Your task to perform on an android device: delete location history Image 0: 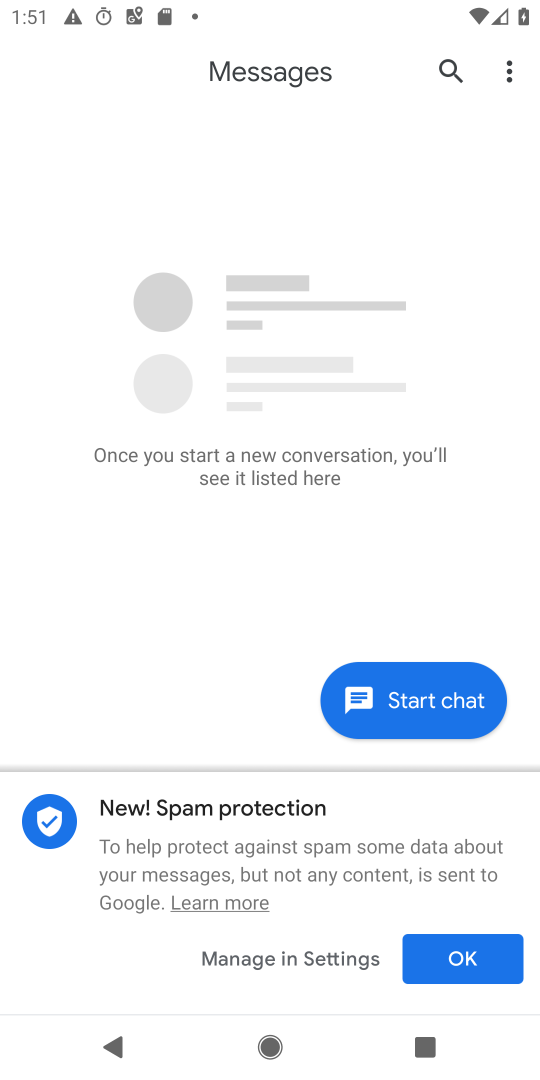
Step 0: press home button
Your task to perform on an android device: delete location history Image 1: 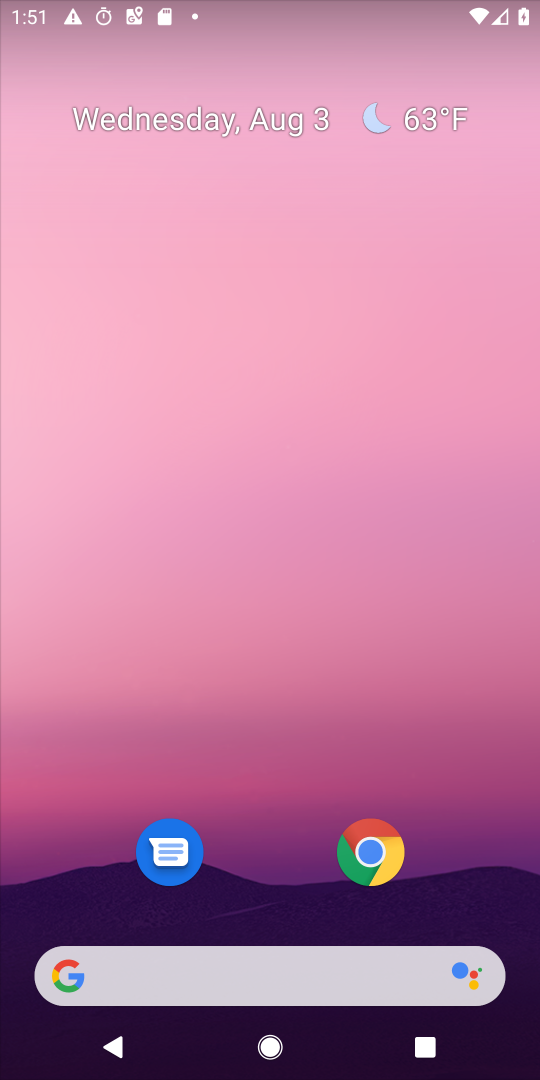
Step 1: drag from (469, 882) to (205, 48)
Your task to perform on an android device: delete location history Image 2: 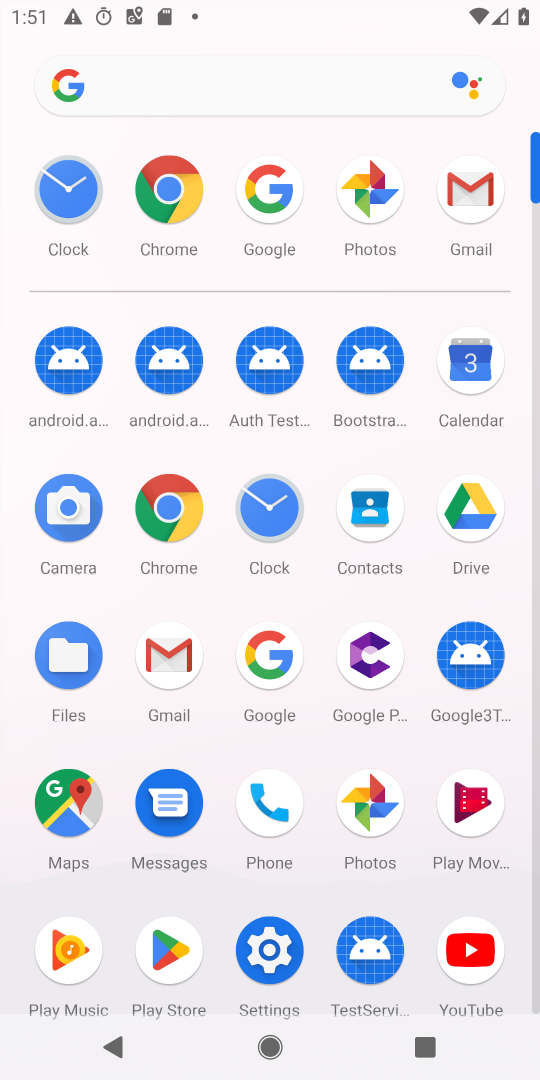
Step 2: click (280, 911)
Your task to perform on an android device: delete location history Image 3: 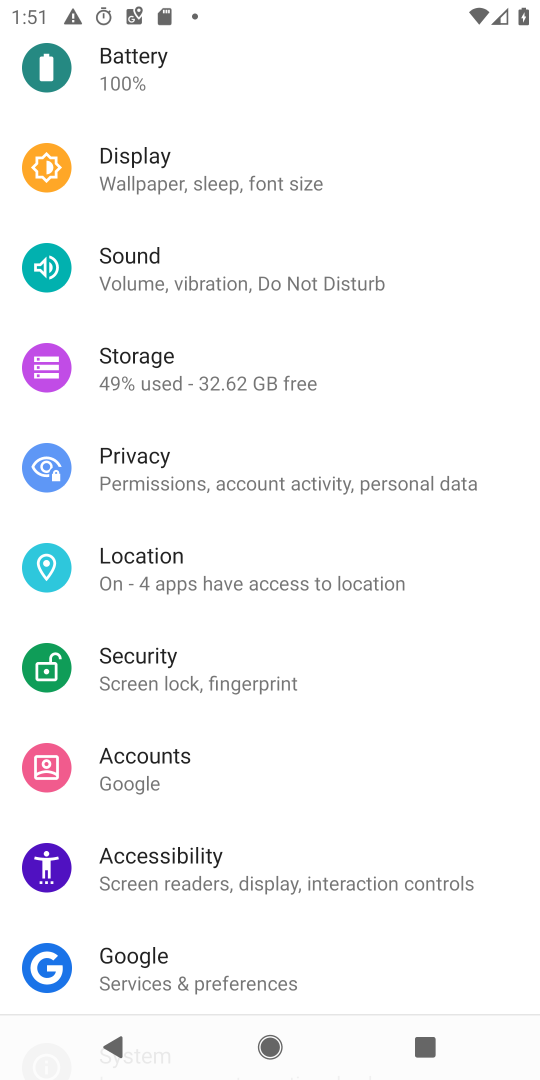
Step 3: click (116, 552)
Your task to perform on an android device: delete location history Image 4: 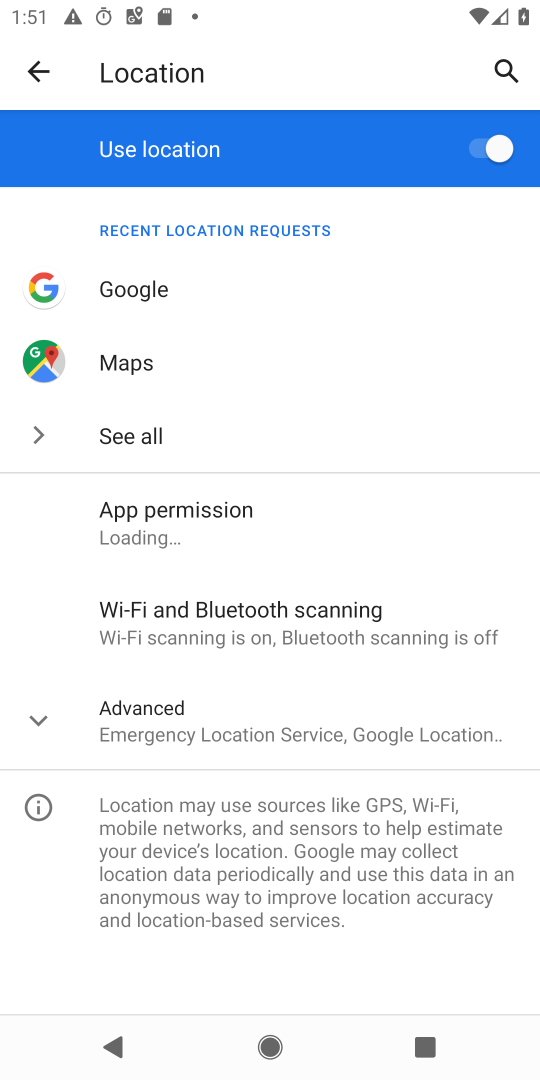
Step 4: click (67, 691)
Your task to perform on an android device: delete location history Image 5: 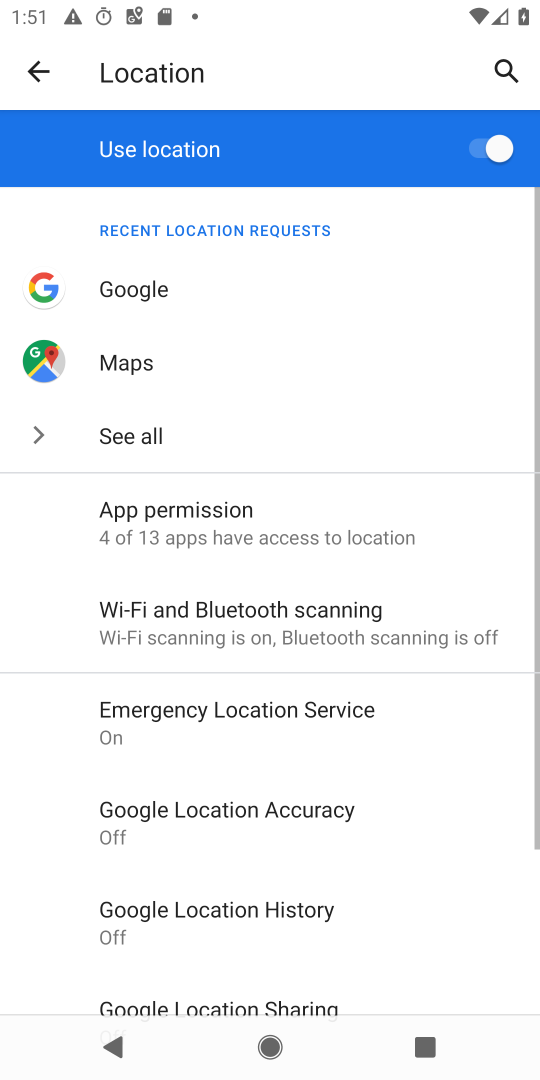
Step 5: click (263, 924)
Your task to perform on an android device: delete location history Image 6: 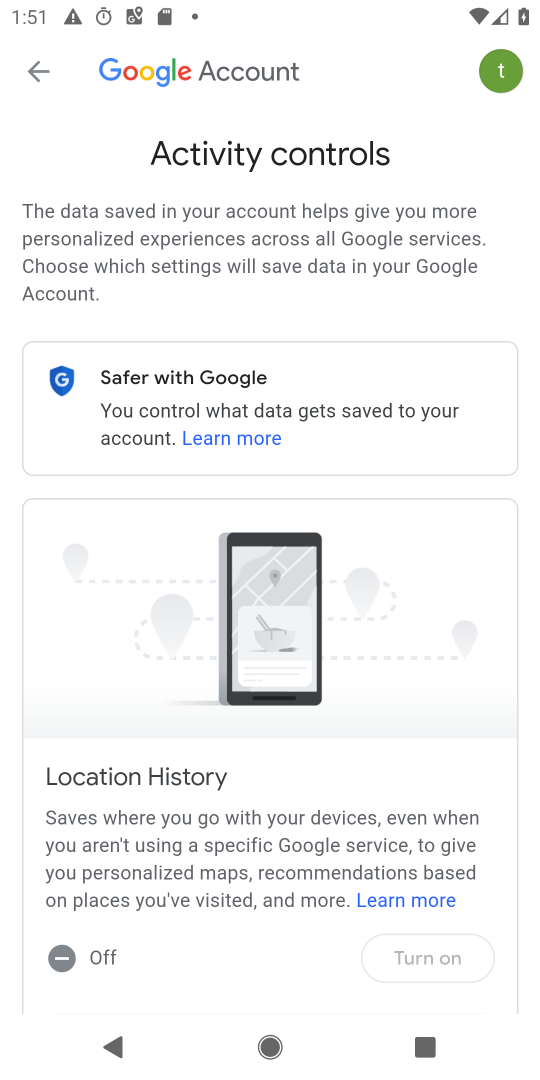
Step 6: task complete